Your task to perform on an android device: change the upload size in google photos Image 0: 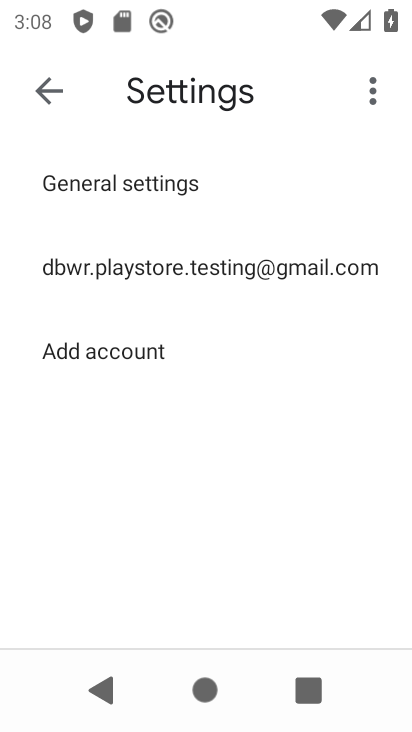
Step 0: press home button
Your task to perform on an android device: change the upload size in google photos Image 1: 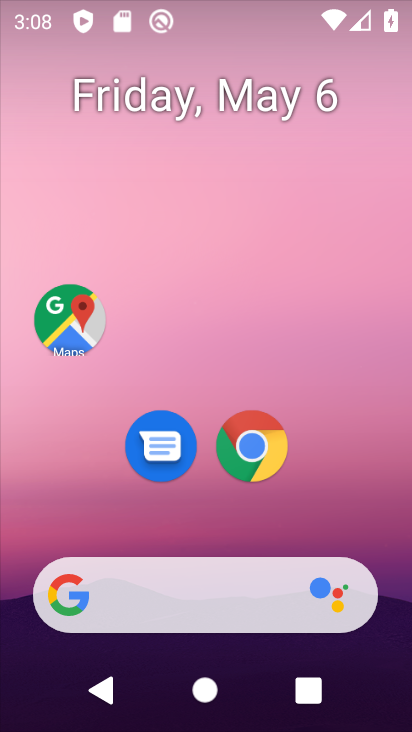
Step 1: drag from (316, 516) to (320, 69)
Your task to perform on an android device: change the upload size in google photos Image 2: 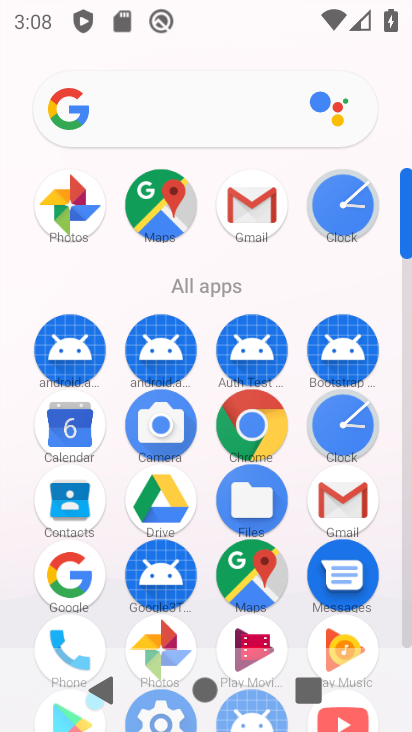
Step 2: click (55, 221)
Your task to perform on an android device: change the upload size in google photos Image 3: 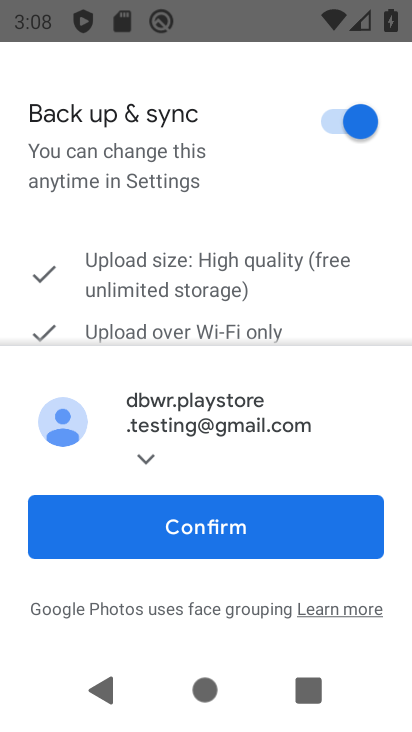
Step 3: click (282, 541)
Your task to perform on an android device: change the upload size in google photos Image 4: 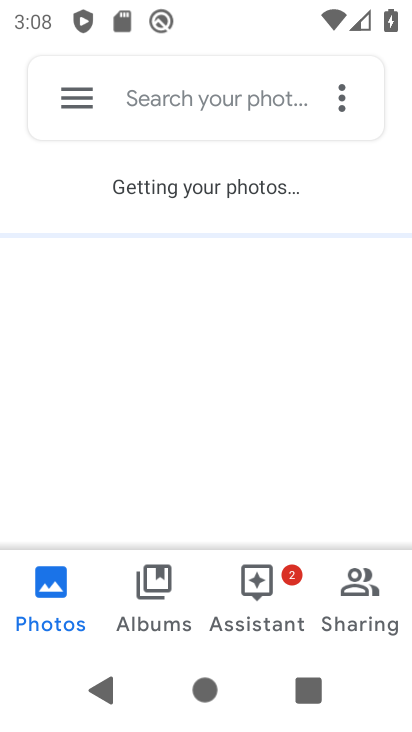
Step 4: click (72, 103)
Your task to perform on an android device: change the upload size in google photos Image 5: 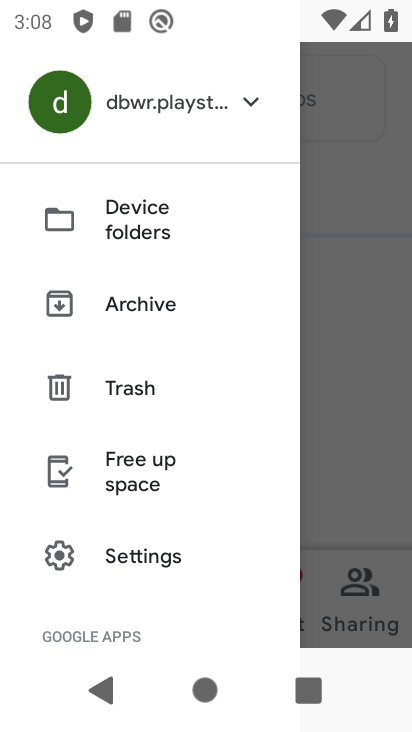
Step 5: click (141, 545)
Your task to perform on an android device: change the upload size in google photos Image 6: 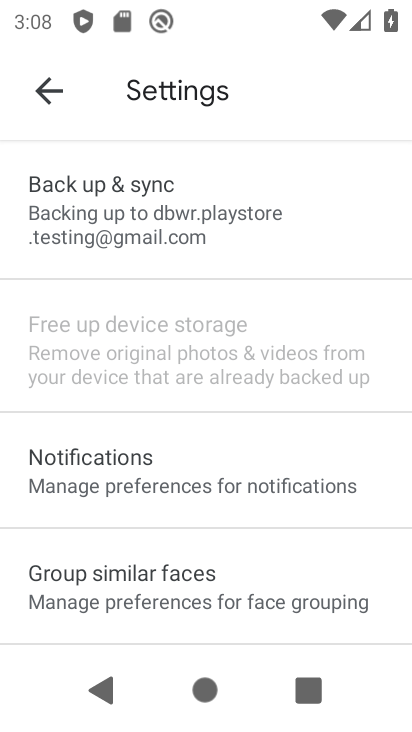
Step 6: click (88, 231)
Your task to perform on an android device: change the upload size in google photos Image 7: 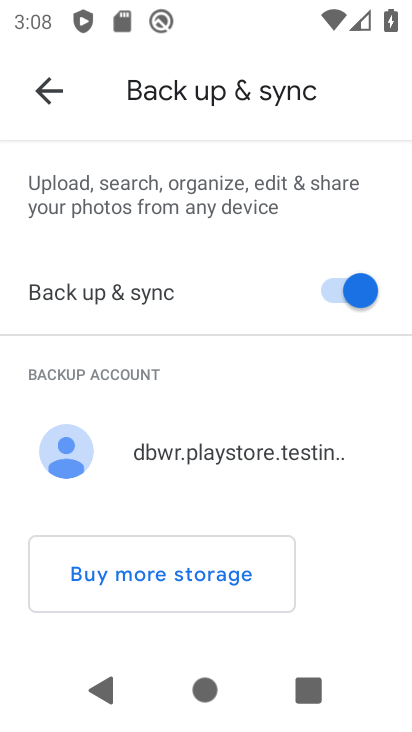
Step 7: drag from (155, 445) to (150, 191)
Your task to perform on an android device: change the upload size in google photos Image 8: 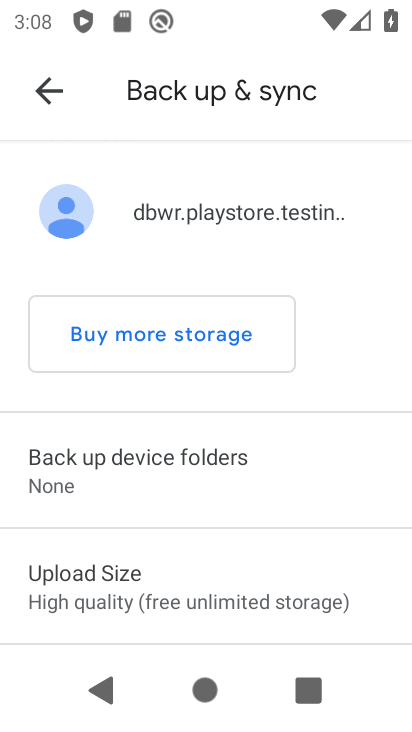
Step 8: click (155, 585)
Your task to perform on an android device: change the upload size in google photos Image 9: 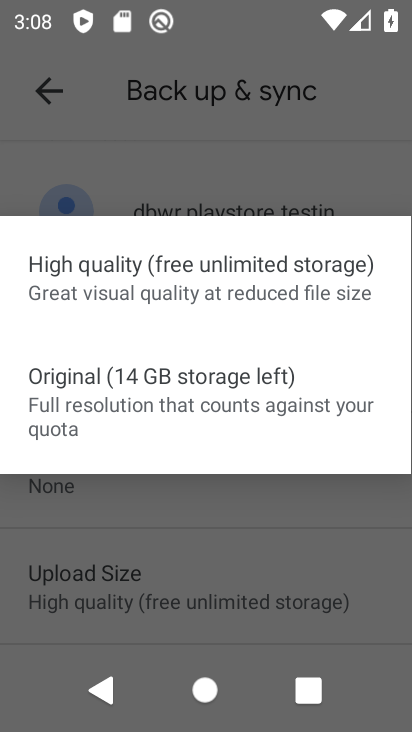
Step 9: click (140, 417)
Your task to perform on an android device: change the upload size in google photos Image 10: 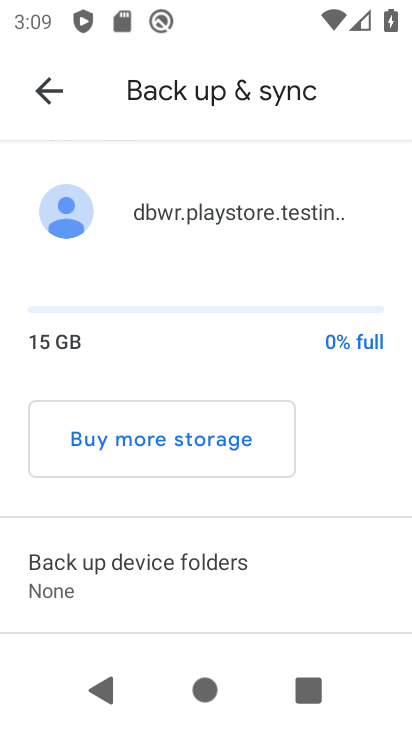
Step 10: task complete